Your task to perform on an android device: check android version Image 0: 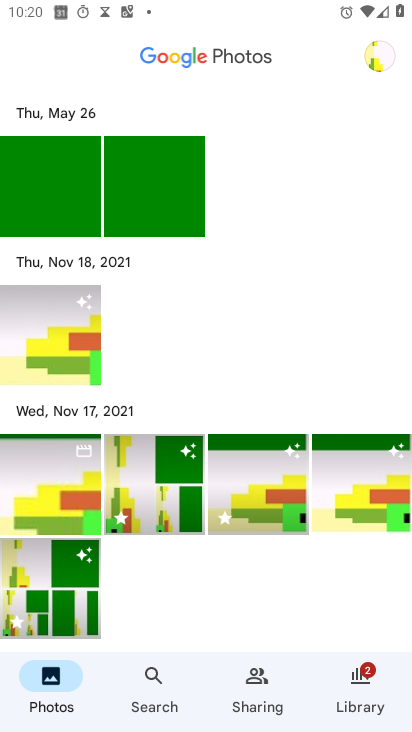
Step 0: press home button
Your task to perform on an android device: check android version Image 1: 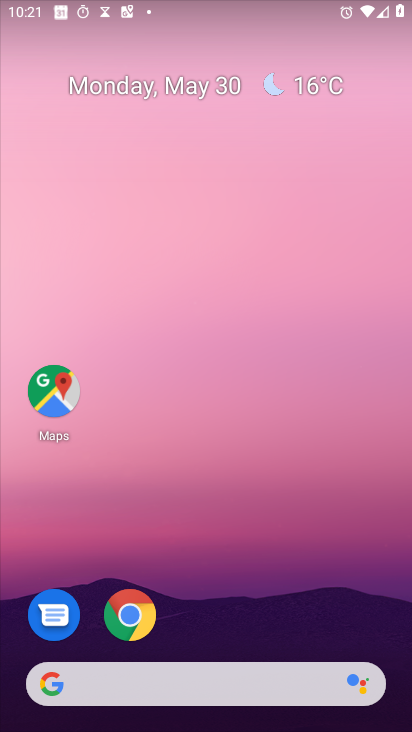
Step 1: drag from (327, 609) to (320, 40)
Your task to perform on an android device: check android version Image 2: 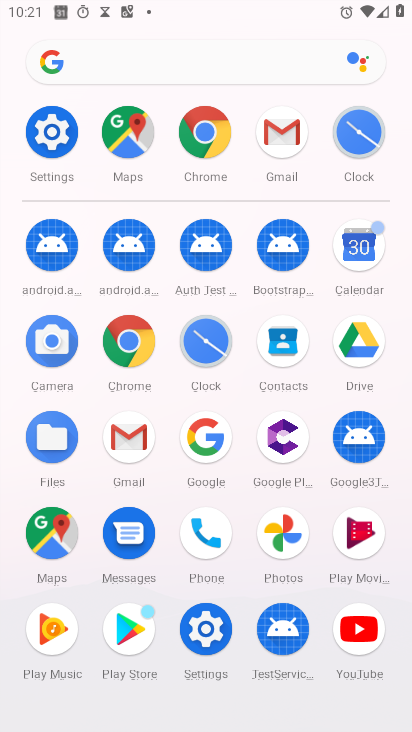
Step 2: click (54, 137)
Your task to perform on an android device: check android version Image 3: 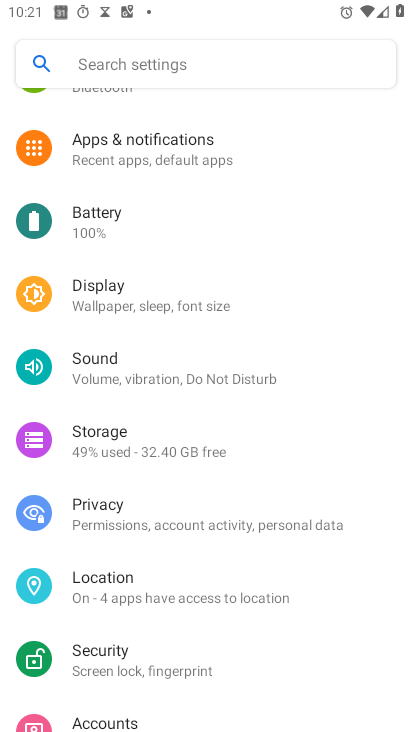
Step 3: drag from (305, 658) to (212, 179)
Your task to perform on an android device: check android version Image 4: 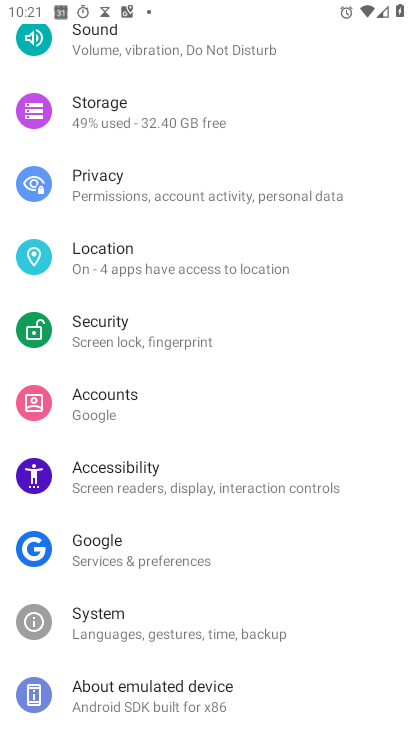
Step 4: click (186, 699)
Your task to perform on an android device: check android version Image 5: 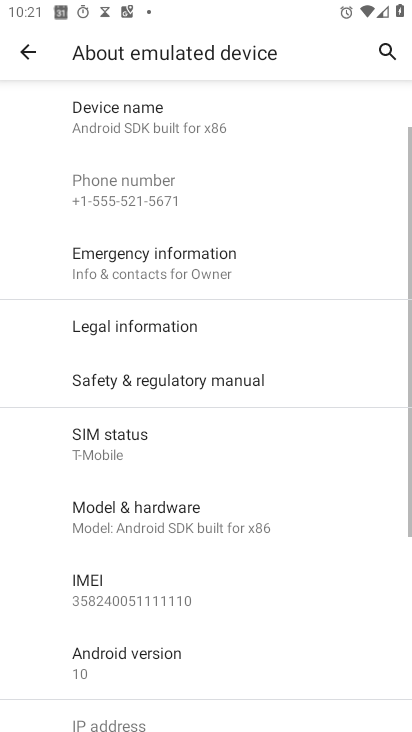
Step 5: drag from (157, 559) to (138, 227)
Your task to perform on an android device: check android version Image 6: 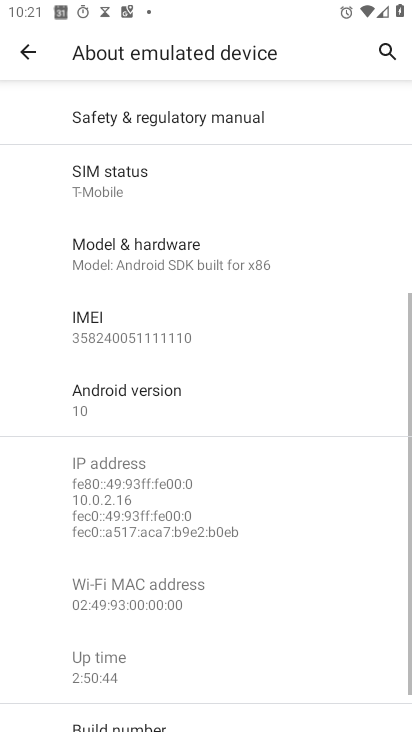
Step 6: click (102, 404)
Your task to perform on an android device: check android version Image 7: 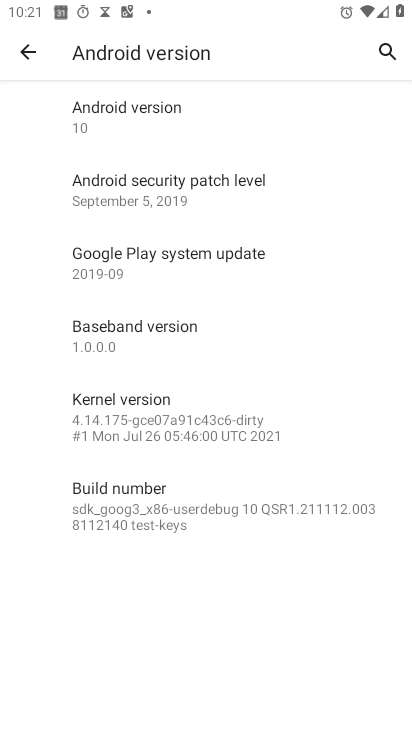
Step 7: task complete